Your task to perform on an android device: open the mobile data screen to see how much data has been used Image 0: 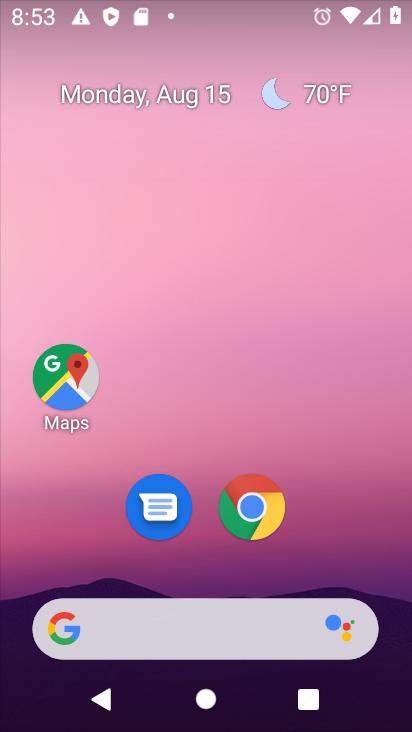
Step 0: drag from (183, 646) to (361, 19)
Your task to perform on an android device: open the mobile data screen to see how much data has been used Image 1: 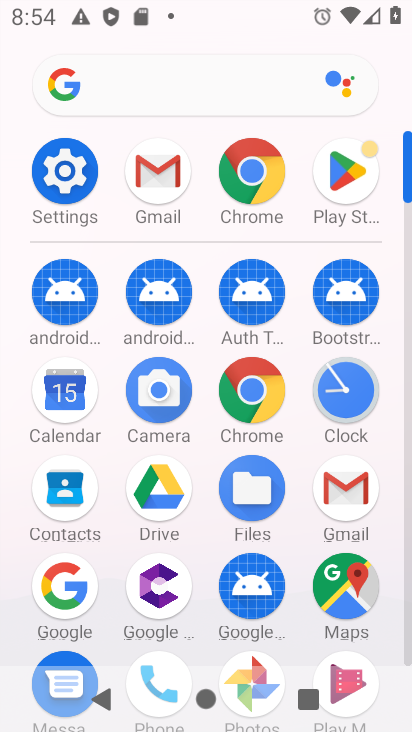
Step 1: click (42, 178)
Your task to perform on an android device: open the mobile data screen to see how much data has been used Image 2: 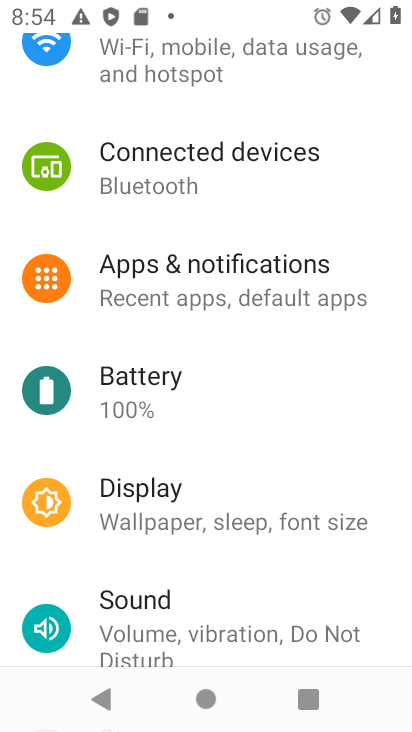
Step 2: drag from (229, 161) to (200, 584)
Your task to perform on an android device: open the mobile data screen to see how much data has been used Image 3: 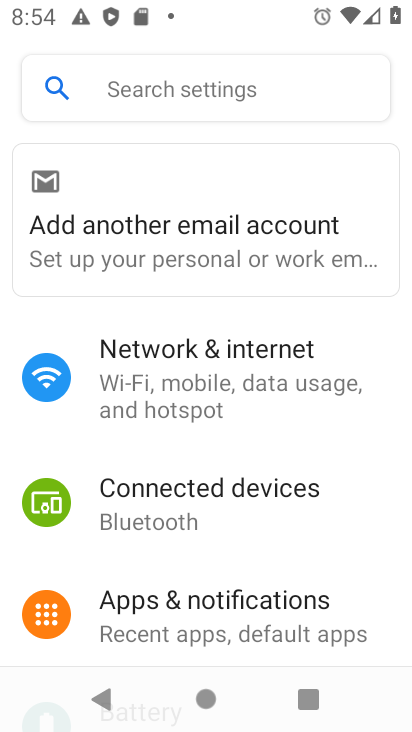
Step 3: click (163, 363)
Your task to perform on an android device: open the mobile data screen to see how much data has been used Image 4: 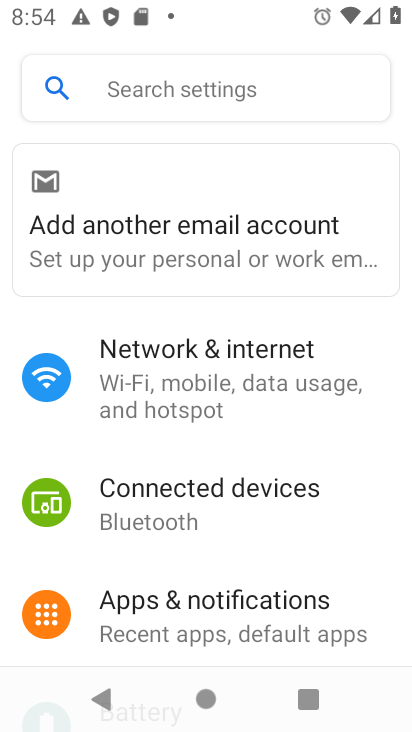
Step 4: click (131, 395)
Your task to perform on an android device: open the mobile data screen to see how much data has been used Image 5: 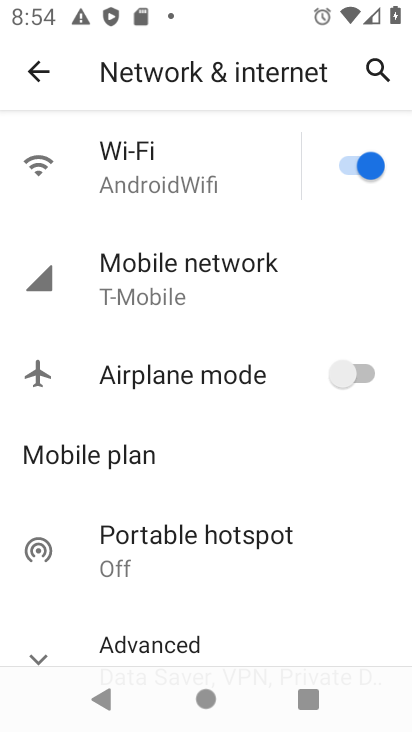
Step 5: click (162, 284)
Your task to perform on an android device: open the mobile data screen to see how much data has been used Image 6: 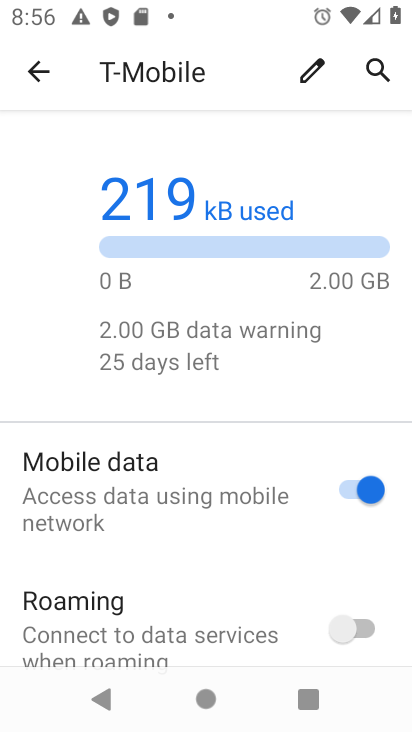
Step 6: task complete